Your task to perform on an android device: open app "ColorNote Notepad Notes" Image 0: 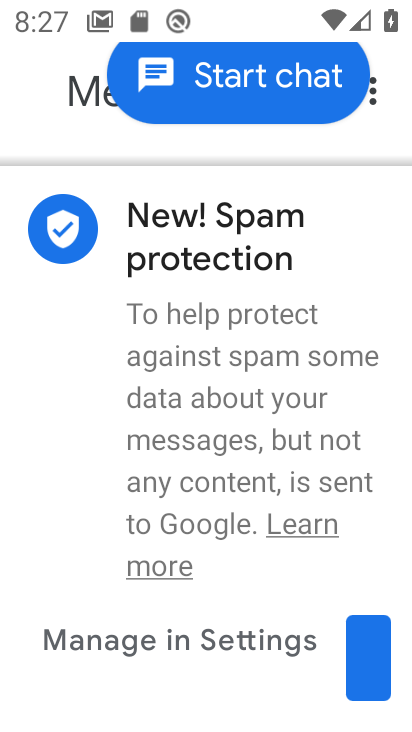
Step 0: press home button
Your task to perform on an android device: open app "ColorNote Notepad Notes" Image 1: 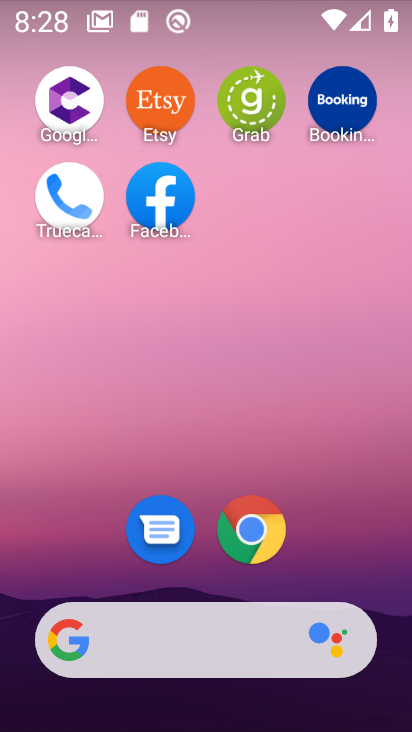
Step 1: drag from (189, 726) to (192, 74)
Your task to perform on an android device: open app "ColorNote Notepad Notes" Image 2: 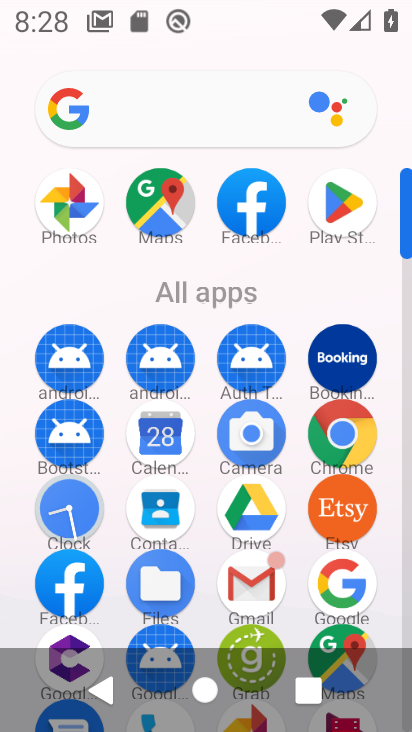
Step 2: click (344, 199)
Your task to perform on an android device: open app "ColorNote Notepad Notes" Image 3: 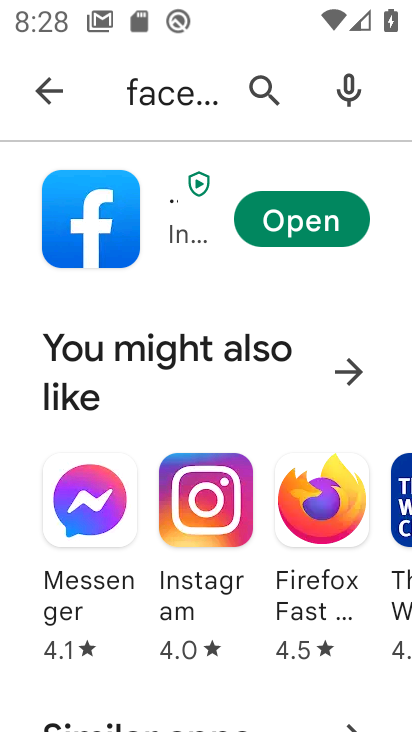
Step 3: click (255, 84)
Your task to perform on an android device: open app "ColorNote Notepad Notes" Image 4: 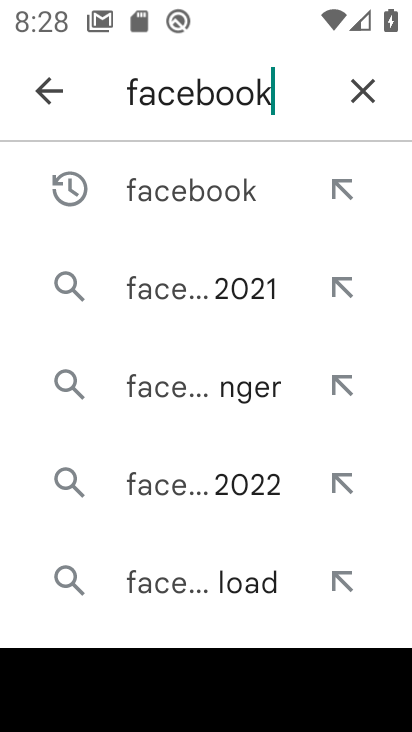
Step 4: click (362, 84)
Your task to perform on an android device: open app "ColorNote Notepad Notes" Image 5: 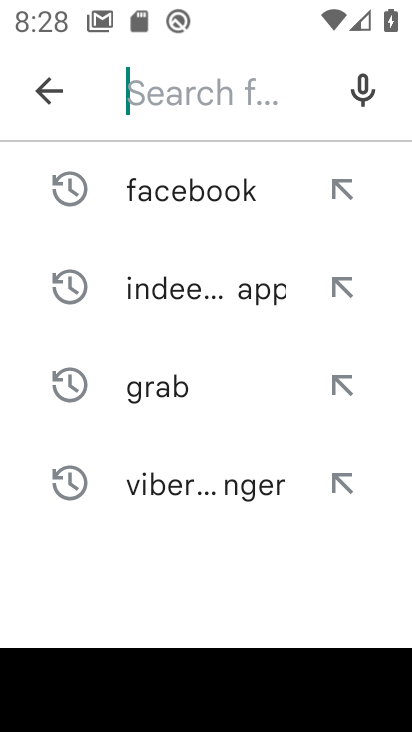
Step 5: type "ColorNote Notepad Notes"
Your task to perform on an android device: open app "ColorNote Notepad Notes" Image 6: 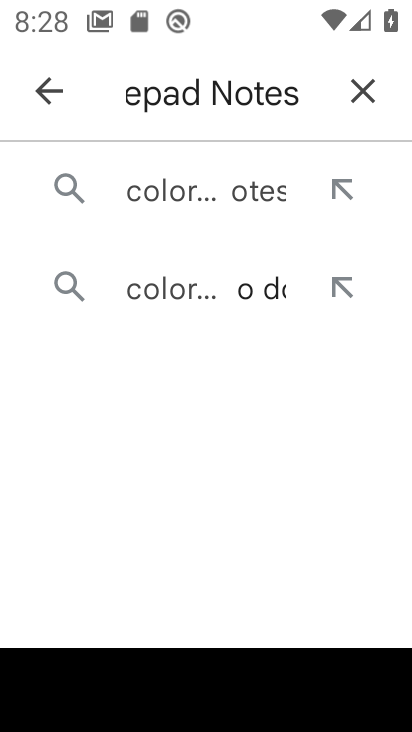
Step 6: click (152, 193)
Your task to perform on an android device: open app "ColorNote Notepad Notes" Image 7: 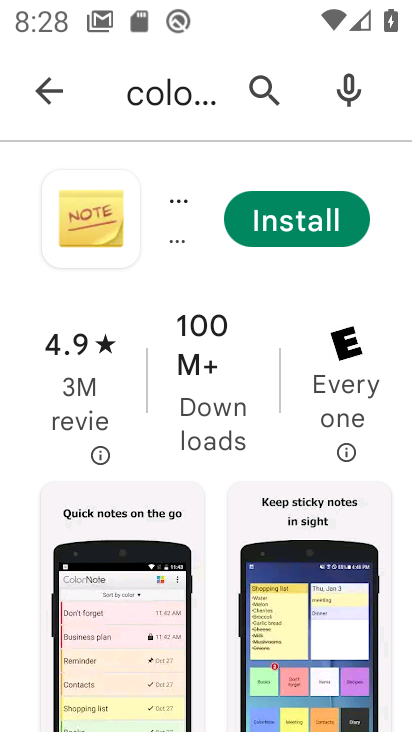
Step 7: task complete